Your task to perform on an android device: toggle translation in the chrome app Image 0: 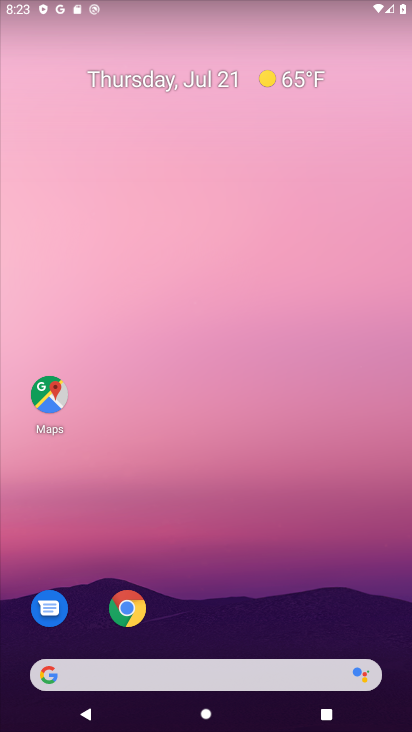
Step 0: click (139, 605)
Your task to perform on an android device: toggle translation in the chrome app Image 1: 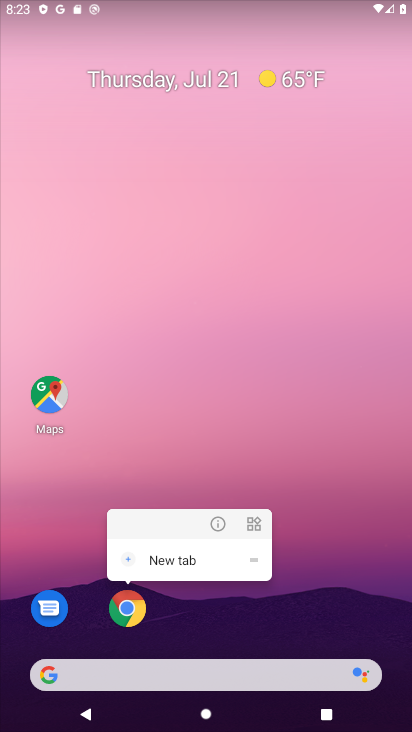
Step 1: click (139, 605)
Your task to perform on an android device: toggle translation in the chrome app Image 2: 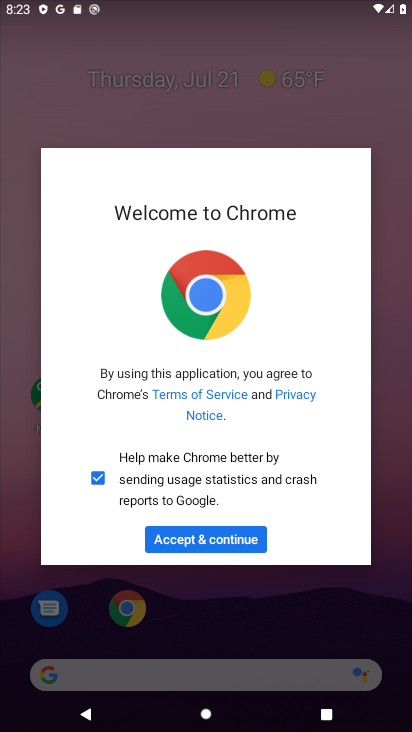
Step 2: click (233, 538)
Your task to perform on an android device: toggle translation in the chrome app Image 3: 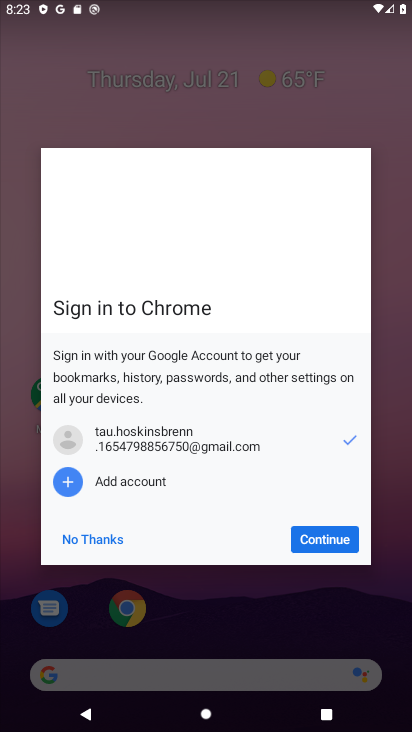
Step 3: click (320, 544)
Your task to perform on an android device: toggle translation in the chrome app Image 4: 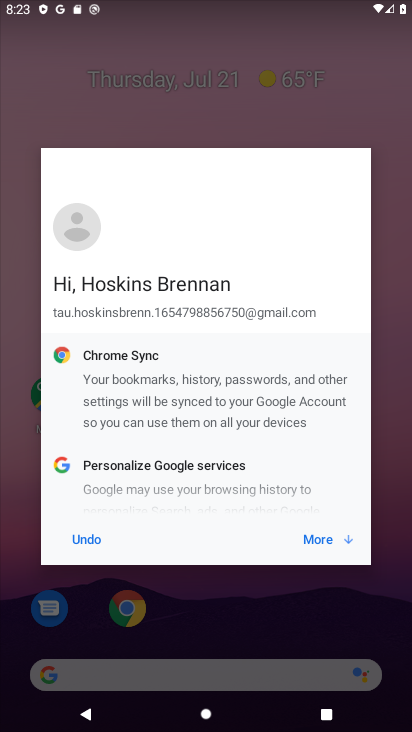
Step 4: click (316, 543)
Your task to perform on an android device: toggle translation in the chrome app Image 5: 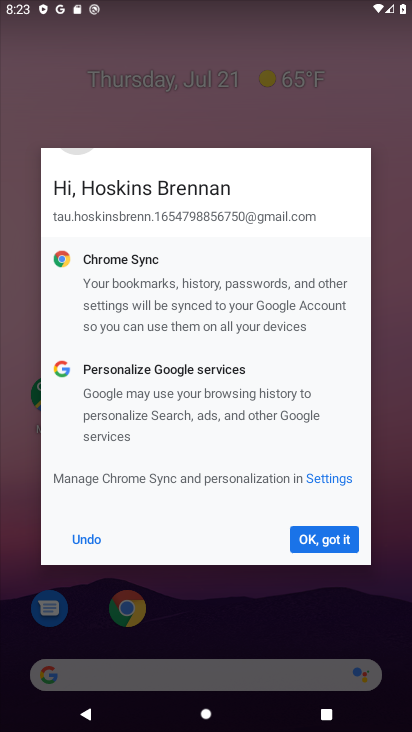
Step 5: click (316, 543)
Your task to perform on an android device: toggle translation in the chrome app Image 6: 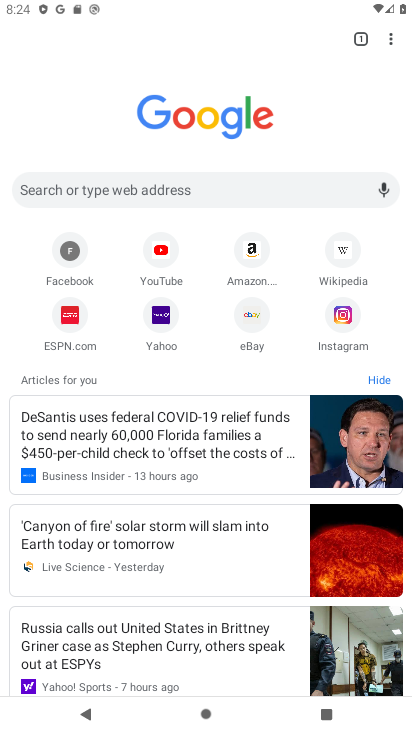
Step 6: task complete